Your task to perform on an android device: Open display settings Image 0: 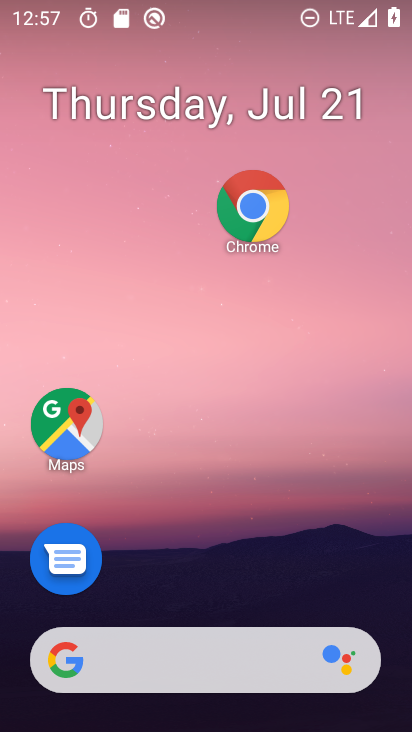
Step 0: drag from (243, 660) to (239, 154)
Your task to perform on an android device: Open display settings Image 1: 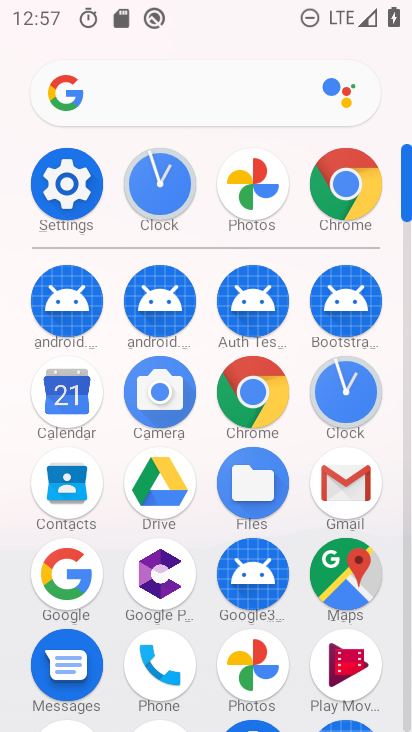
Step 1: click (83, 214)
Your task to perform on an android device: Open display settings Image 2: 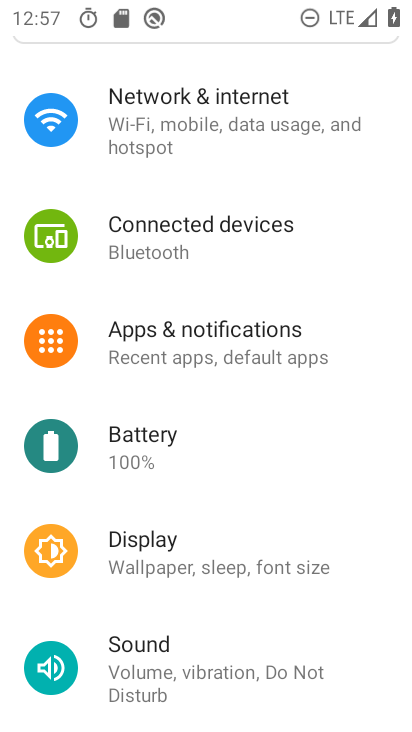
Step 2: click (198, 561)
Your task to perform on an android device: Open display settings Image 3: 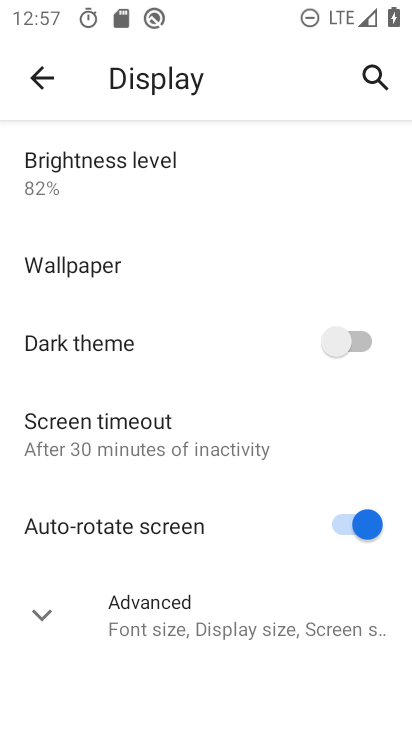
Step 3: click (208, 619)
Your task to perform on an android device: Open display settings Image 4: 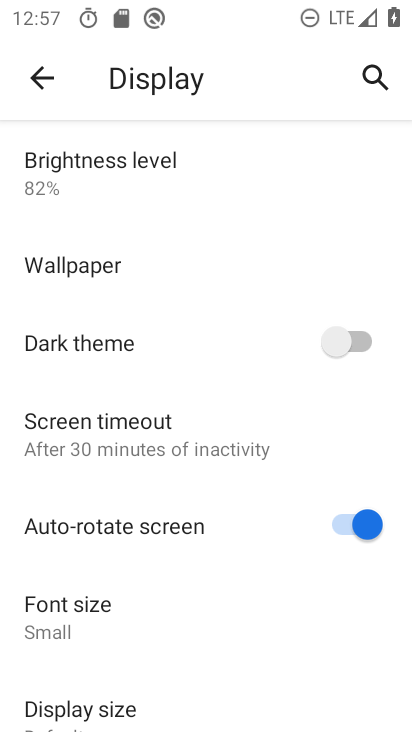
Step 4: drag from (205, 633) to (222, 215)
Your task to perform on an android device: Open display settings Image 5: 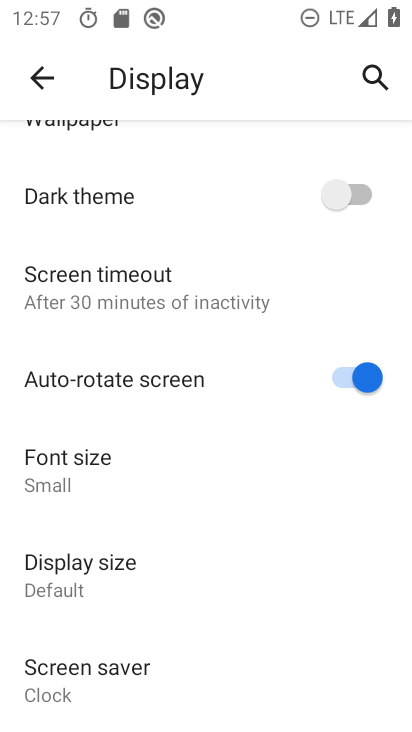
Step 5: click (114, 582)
Your task to perform on an android device: Open display settings Image 6: 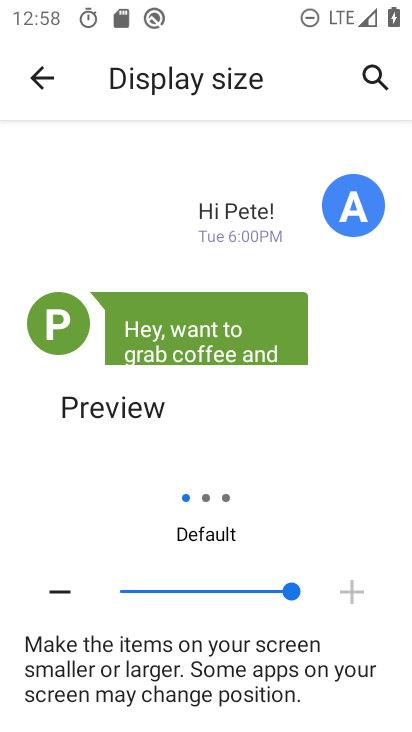
Step 6: task complete